Your task to perform on an android device: turn off location history Image 0: 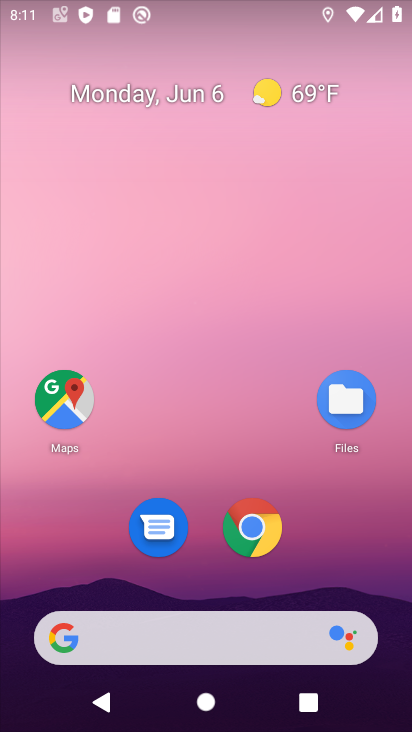
Step 0: drag from (200, 578) to (198, 0)
Your task to perform on an android device: turn off location history Image 1: 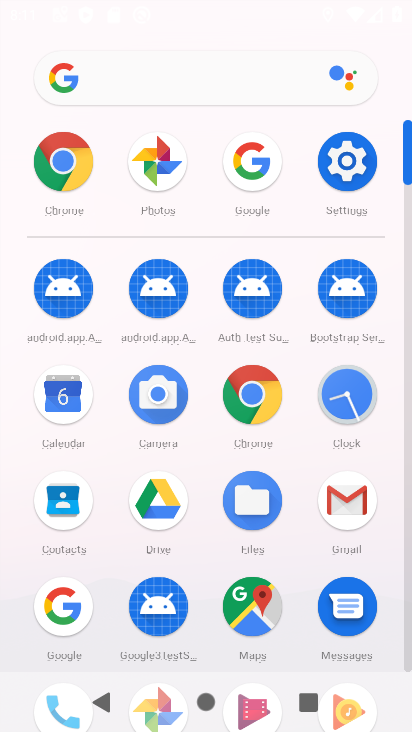
Step 1: click (359, 159)
Your task to perform on an android device: turn off location history Image 2: 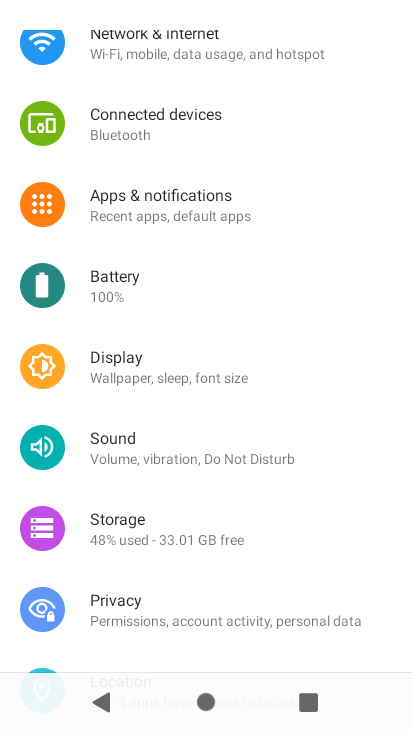
Step 2: drag from (154, 637) to (146, 378)
Your task to perform on an android device: turn off location history Image 3: 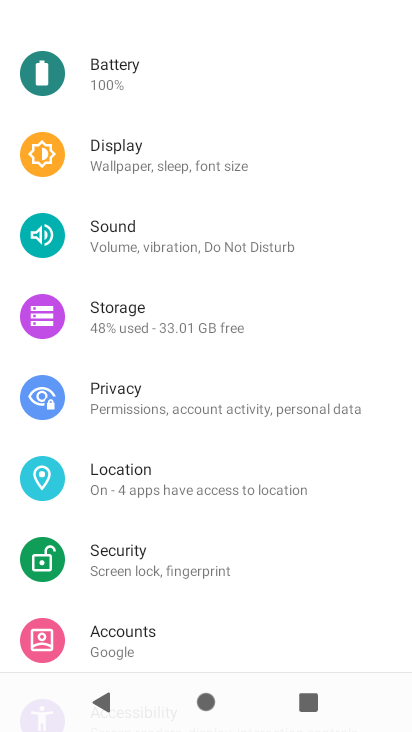
Step 3: click (149, 489)
Your task to perform on an android device: turn off location history Image 4: 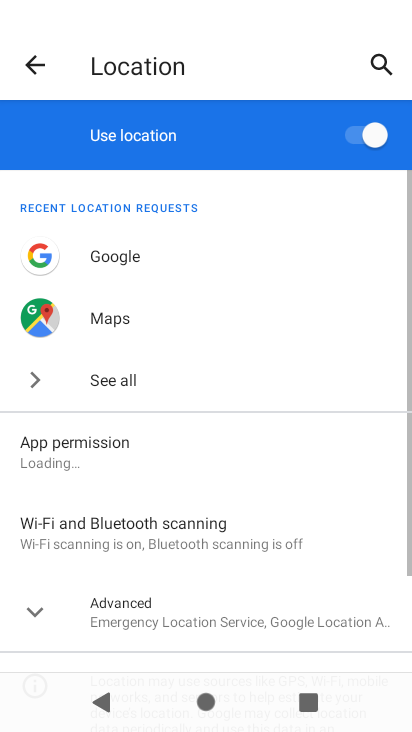
Step 4: drag from (212, 545) to (190, 373)
Your task to perform on an android device: turn off location history Image 5: 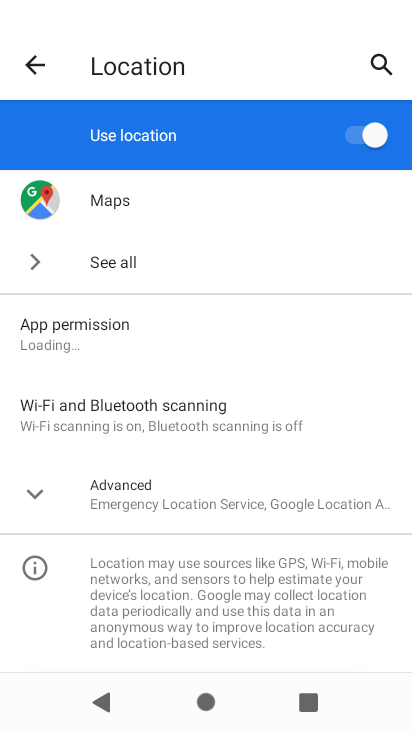
Step 5: click (124, 478)
Your task to perform on an android device: turn off location history Image 6: 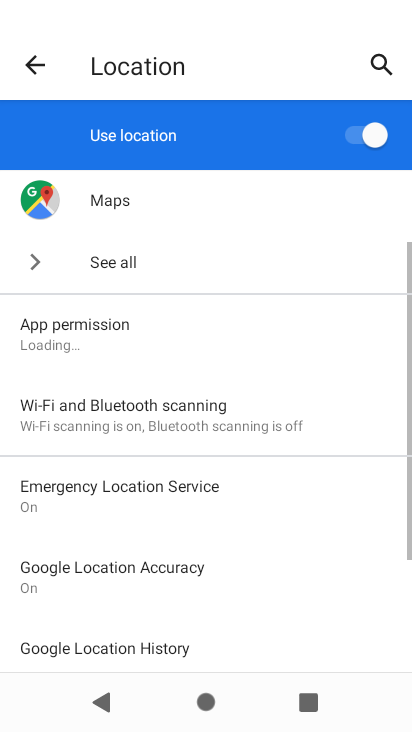
Step 6: drag from (293, 484) to (238, 346)
Your task to perform on an android device: turn off location history Image 7: 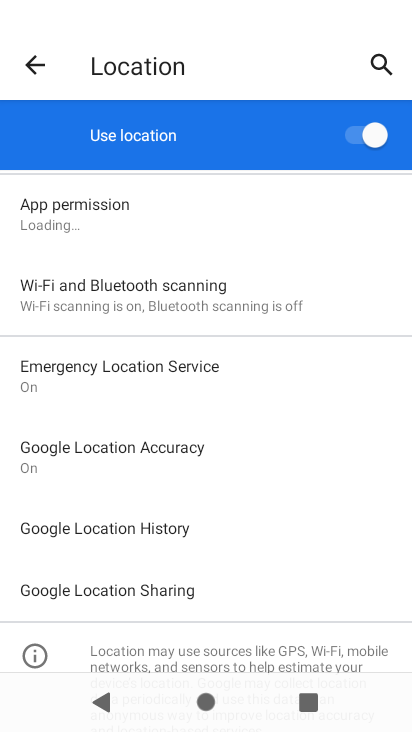
Step 7: click (137, 515)
Your task to perform on an android device: turn off location history Image 8: 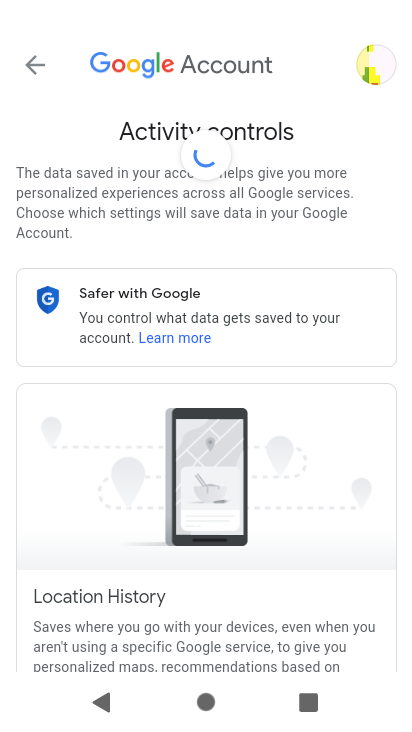
Step 8: task complete